Your task to perform on an android device: Open accessibility settings Image 0: 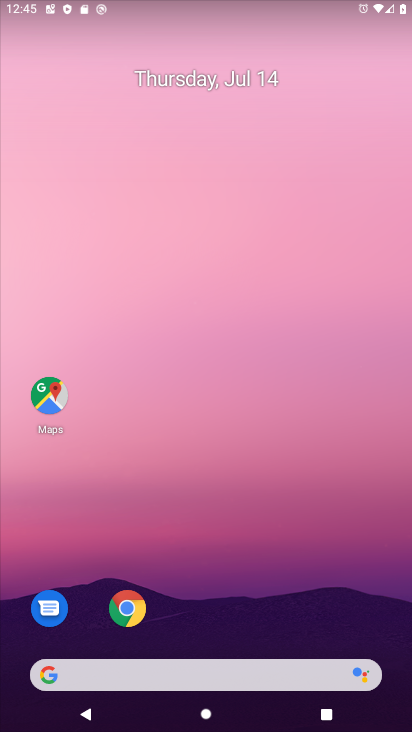
Step 0: drag from (196, 674) to (185, 176)
Your task to perform on an android device: Open accessibility settings Image 1: 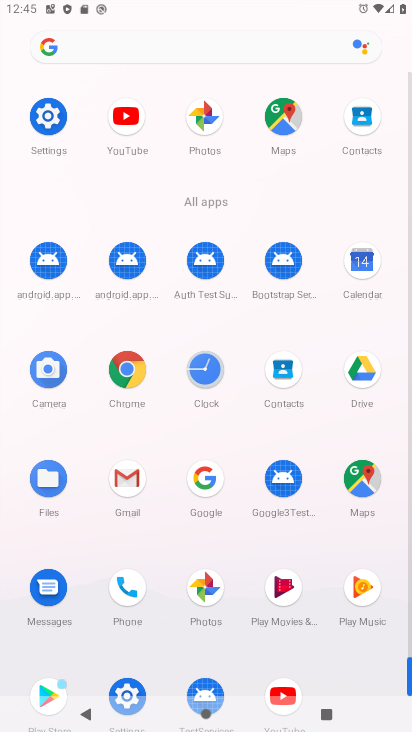
Step 1: click (45, 117)
Your task to perform on an android device: Open accessibility settings Image 2: 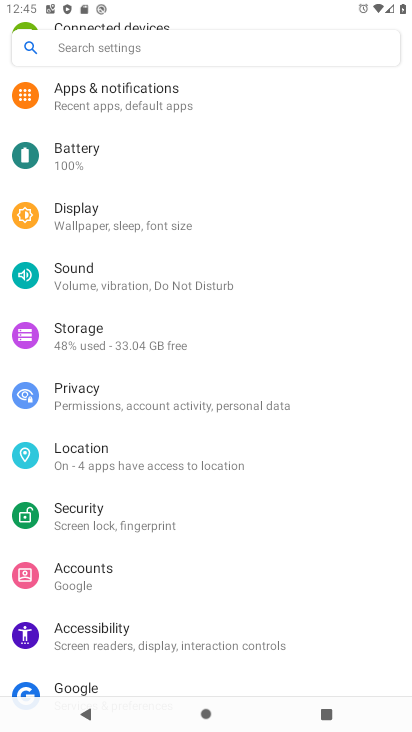
Step 2: click (81, 634)
Your task to perform on an android device: Open accessibility settings Image 3: 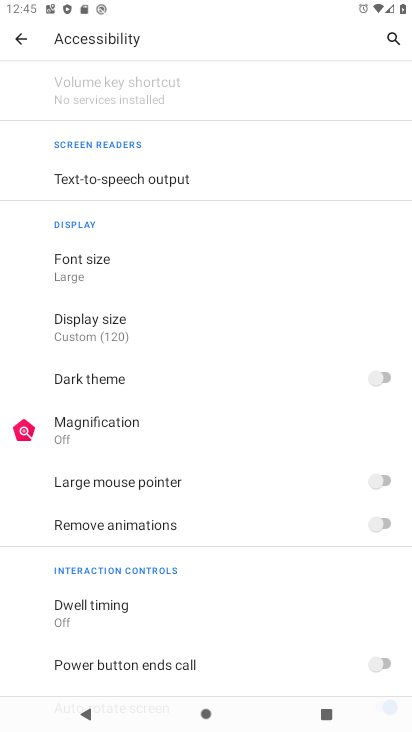
Step 3: task complete